Your task to perform on an android device: manage bookmarks in the chrome app Image 0: 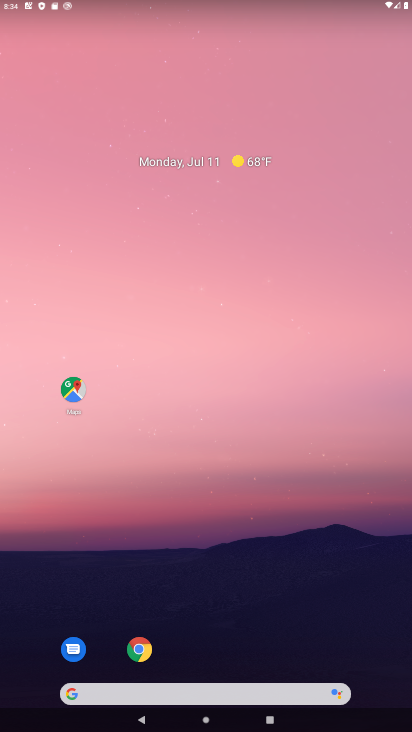
Step 0: drag from (256, 703) to (162, 245)
Your task to perform on an android device: manage bookmarks in the chrome app Image 1: 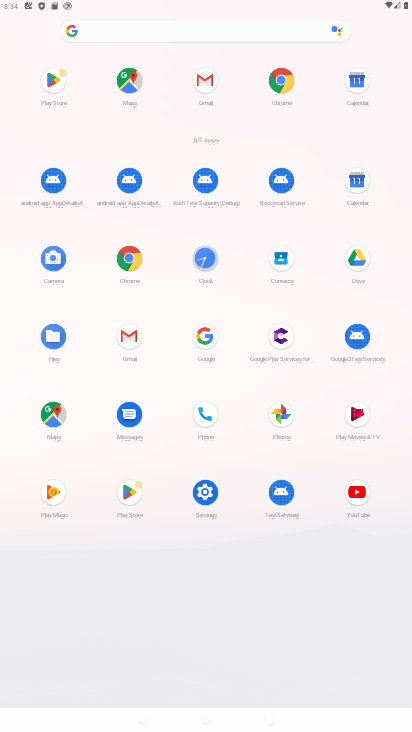
Step 1: click (136, 271)
Your task to perform on an android device: manage bookmarks in the chrome app Image 2: 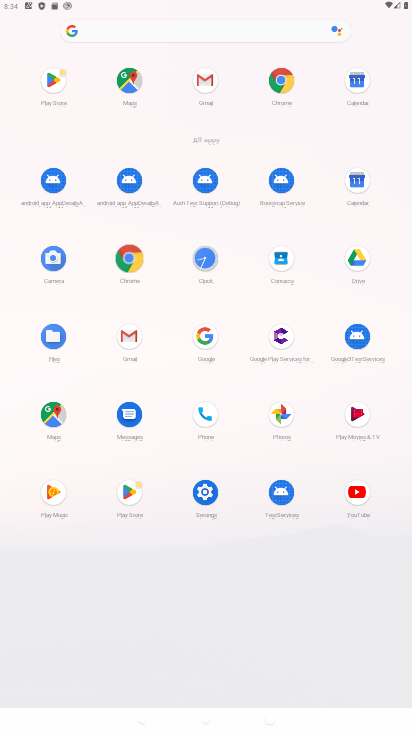
Step 2: click (136, 261)
Your task to perform on an android device: manage bookmarks in the chrome app Image 3: 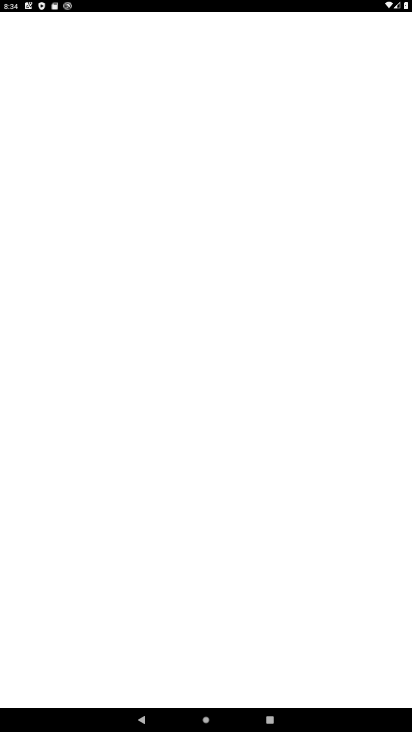
Step 3: click (137, 259)
Your task to perform on an android device: manage bookmarks in the chrome app Image 4: 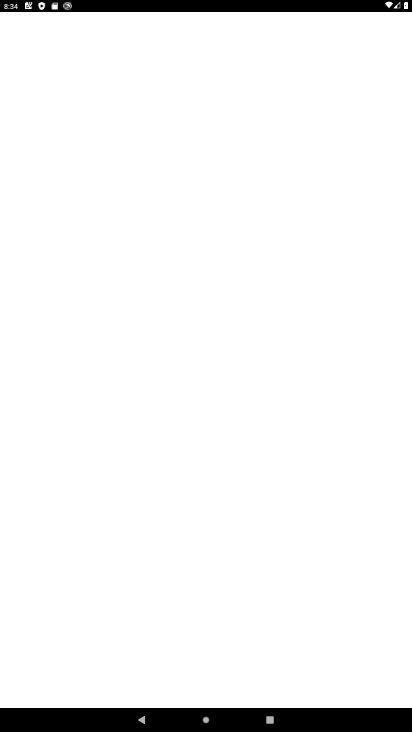
Step 4: click (135, 258)
Your task to perform on an android device: manage bookmarks in the chrome app Image 5: 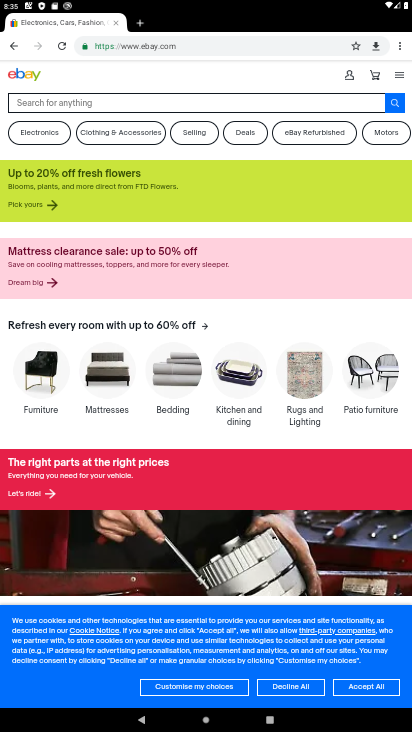
Step 5: drag from (397, 46) to (322, 88)
Your task to perform on an android device: manage bookmarks in the chrome app Image 6: 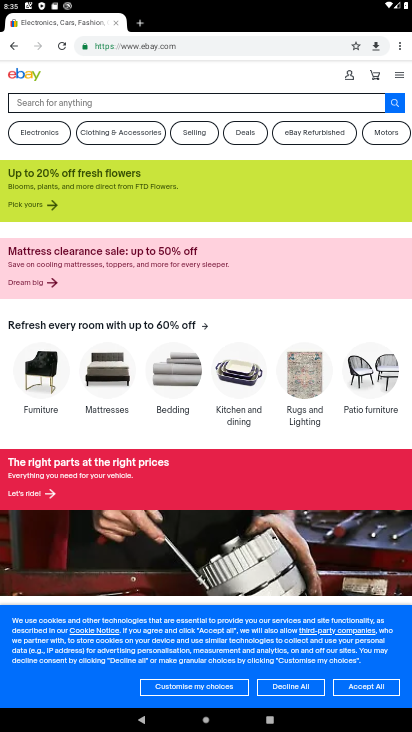
Step 6: click (324, 89)
Your task to perform on an android device: manage bookmarks in the chrome app Image 7: 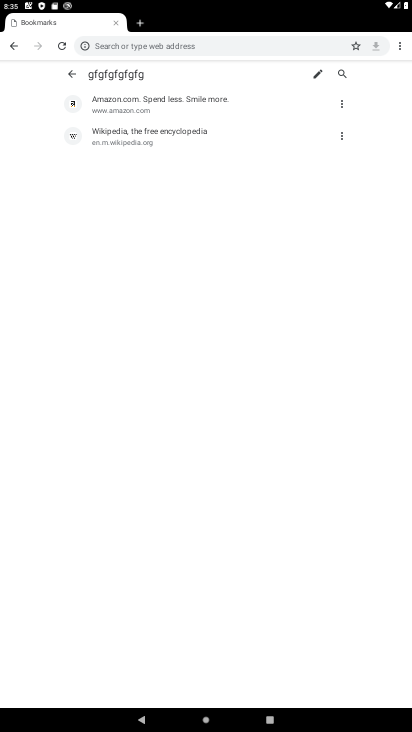
Step 7: task complete